Your task to perform on an android device: Open the stopwatch Image 0: 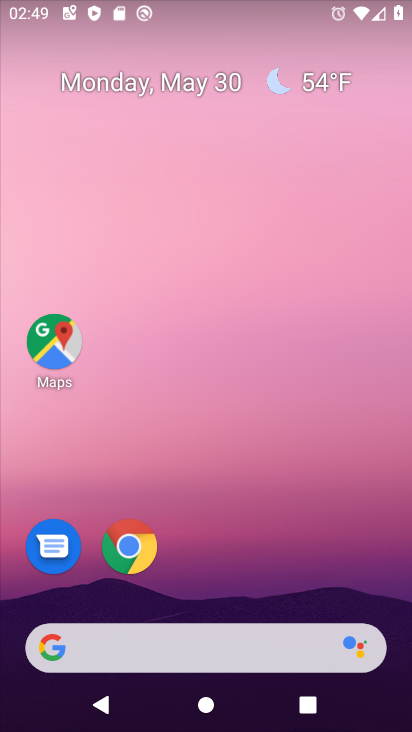
Step 0: drag from (216, 604) to (209, 499)
Your task to perform on an android device: Open the stopwatch Image 1: 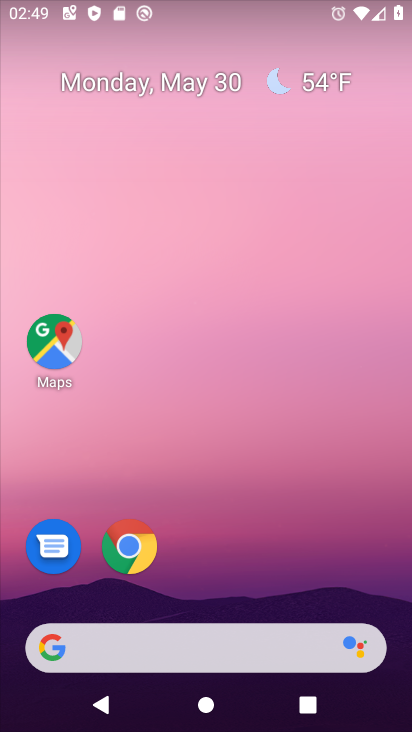
Step 1: drag from (200, 205) to (207, 107)
Your task to perform on an android device: Open the stopwatch Image 2: 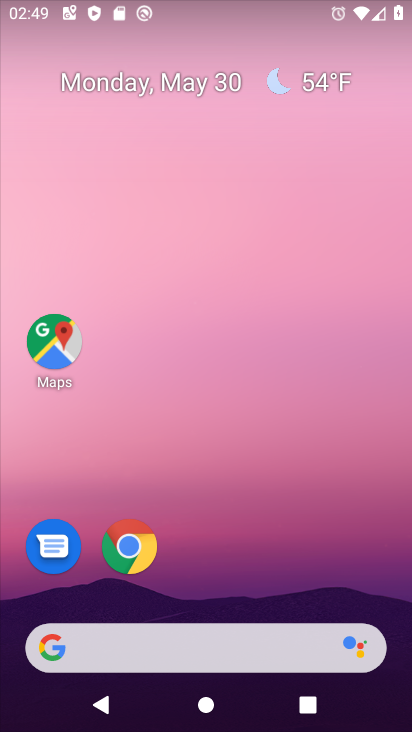
Step 2: drag from (222, 536) to (222, 11)
Your task to perform on an android device: Open the stopwatch Image 3: 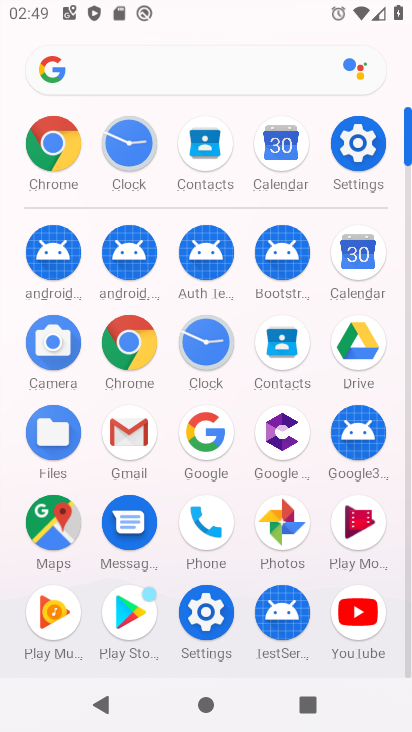
Step 3: click (203, 335)
Your task to perform on an android device: Open the stopwatch Image 4: 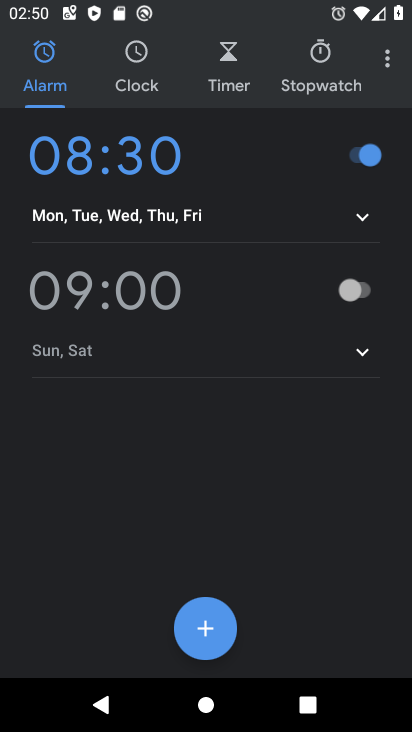
Step 4: click (321, 52)
Your task to perform on an android device: Open the stopwatch Image 5: 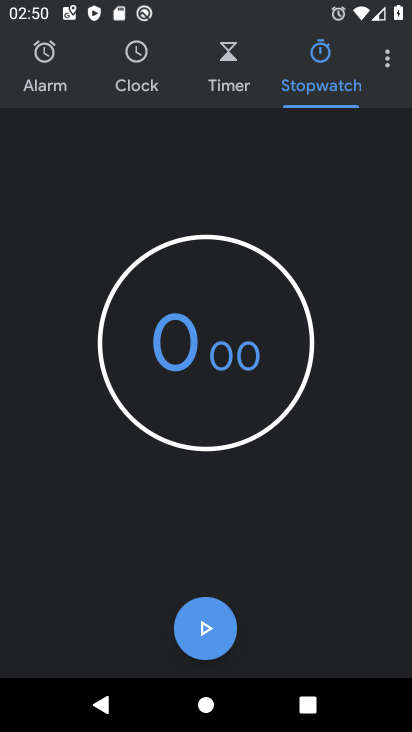
Step 5: click (194, 622)
Your task to perform on an android device: Open the stopwatch Image 6: 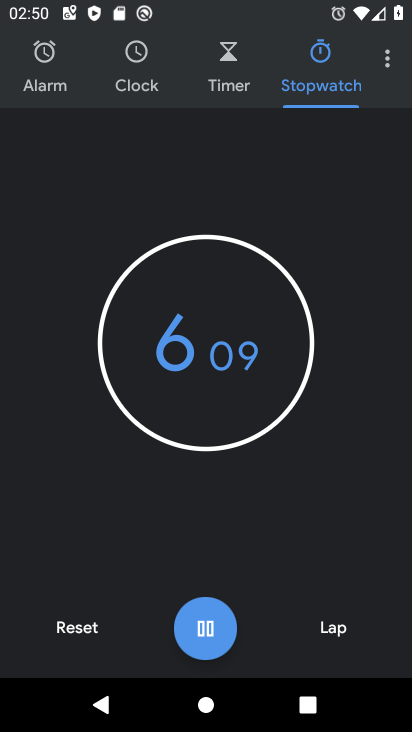
Step 6: task complete